Your task to perform on an android device: Open display settings Image 0: 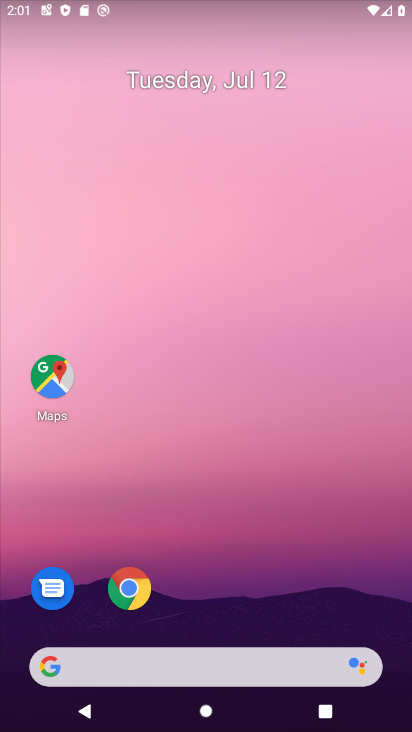
Step 0: drag from (261, 655) to (229, 339)
Your task to perform on an android device: Open display settings Image 1: 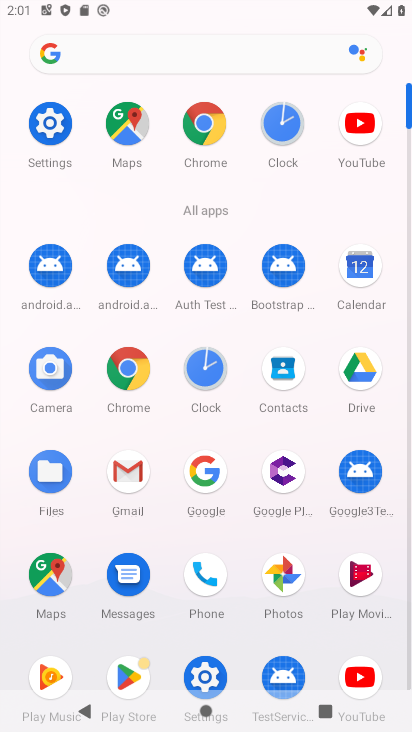
Step 1: click (219, 672)
Your task to perform on an android device: Open display settings Image 2: 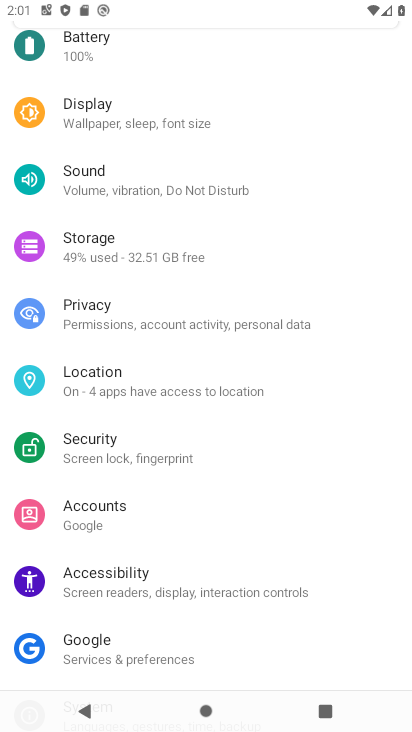
Step 2: click (84, 112)
Your task to perform on an android device: Open display settings Image 3: 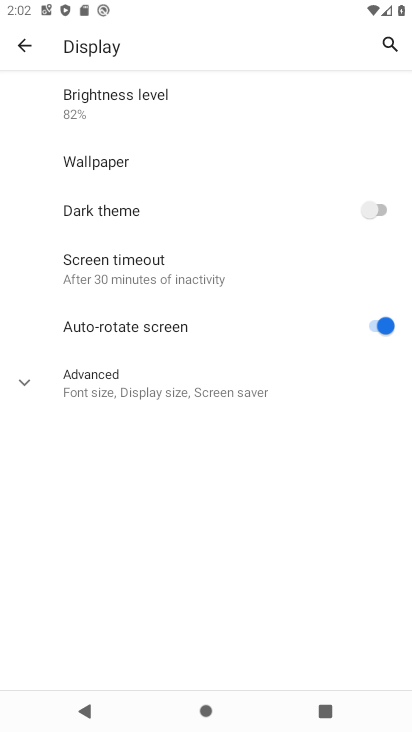
Step 3: task complete